Your task to perform on an android device: toggle pop-ups in chrome Image 0: 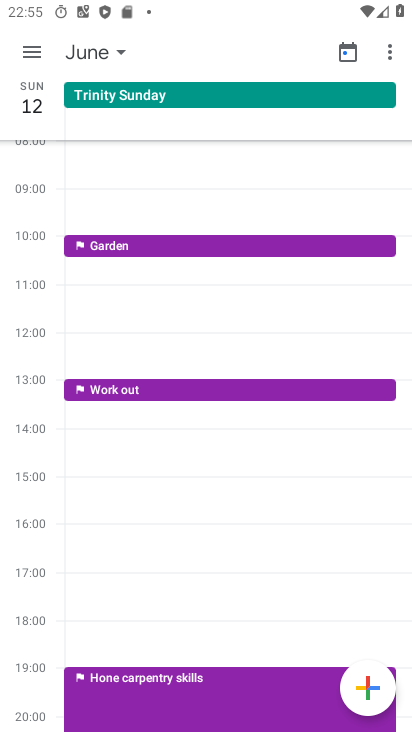
Step 0: press home button
Your task to perform on an android device: toggle pop-ups in chrome Image 1: 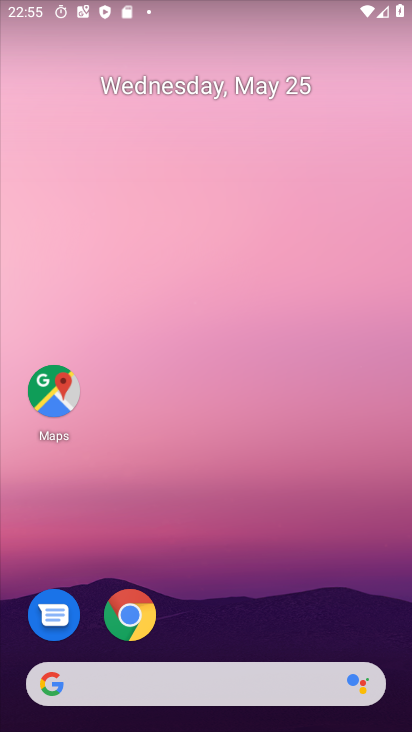
Step 1: click (139, 599)
Your task to perform on an android device: toggle pop-ups in chrome Image 2: 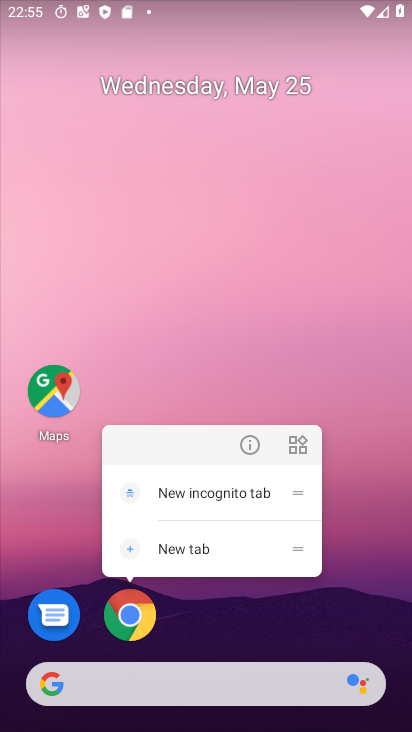
Step 2: click (149, 618)
Your task to perform on an android device: toggle pop-ups in chrome Image 3: 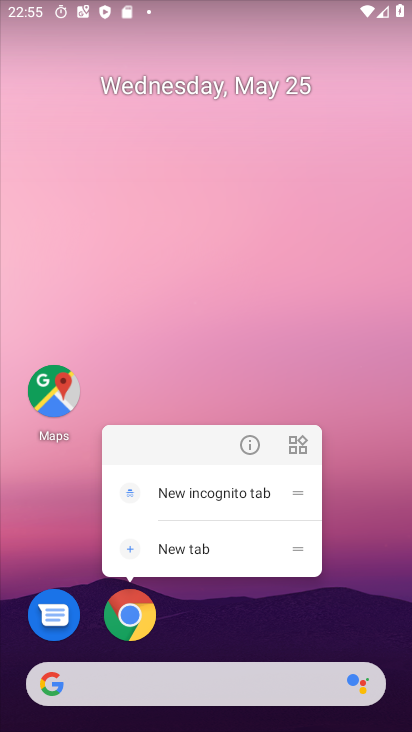
Step 3: click (122, 625)
Your task to perform on an android device: toggle pop-ups in chrome Image 4: 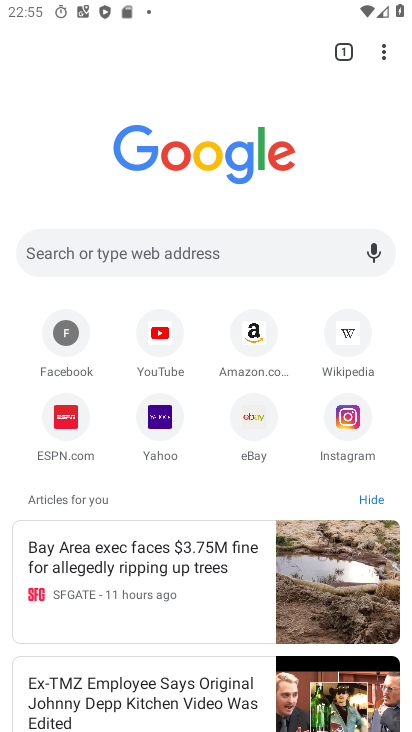
Step 4: click (381, 51)
Your task to perform on an android device: toggle pop-ups in chrome Image 5: 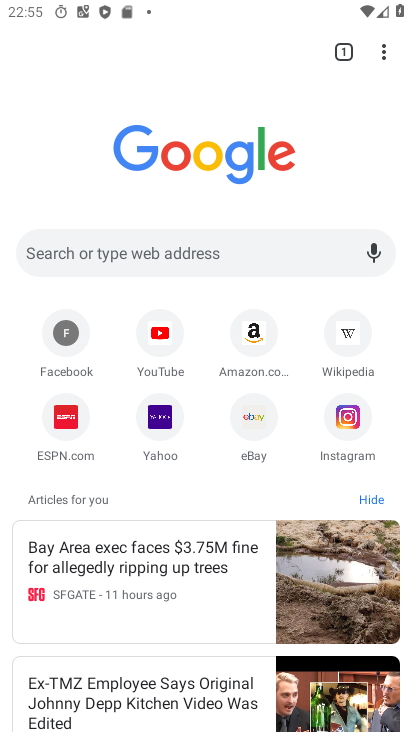
Step 5: click (393, 54)
Your task to perform on an android device: toggle pop-ups in chrome Image 6: 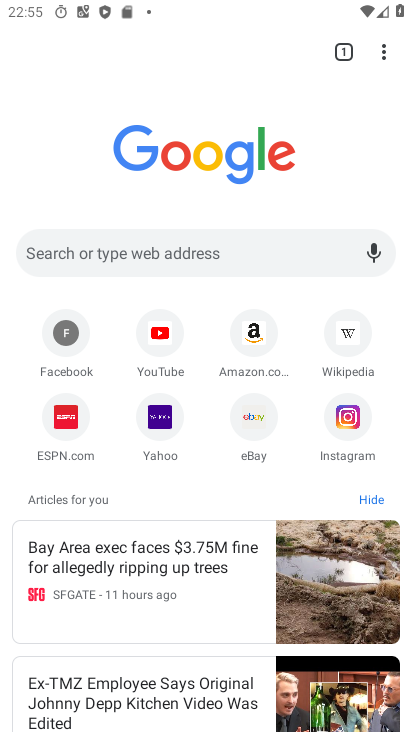
Step 6: drag from (381, 39) to (227, 434)
Your task to perform on an android device: toggle pop-ups in chrome Image 7: 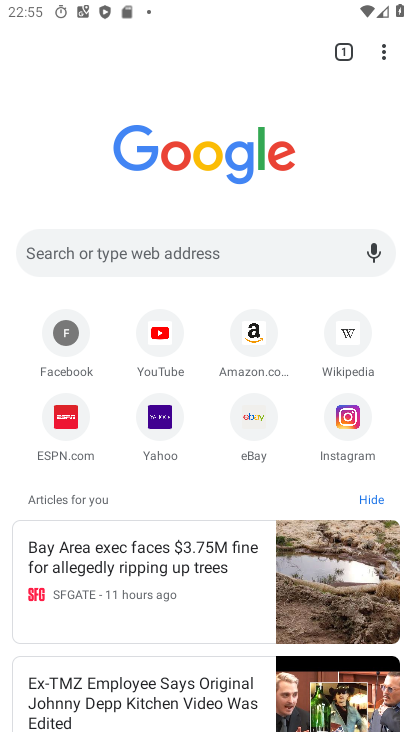
Step 7: click (229, 430)
Your task to perform on an android device: toggle pop-ups in chrome Image 8: 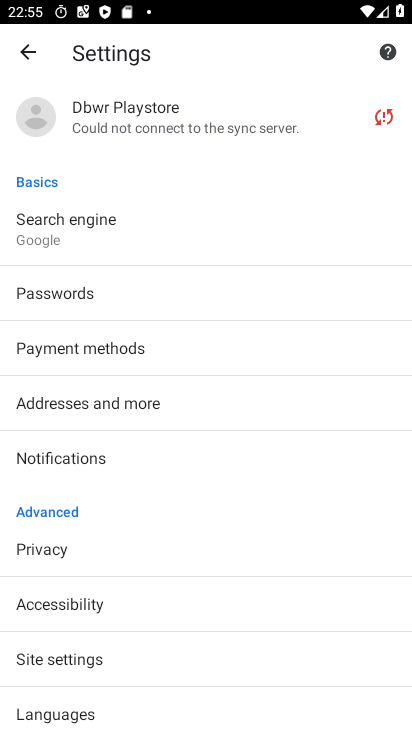
Step 8: drag from (147, 582) to (180, 447)
Your task to perform on an android device: toggle pop-ups in chrome Image 9: 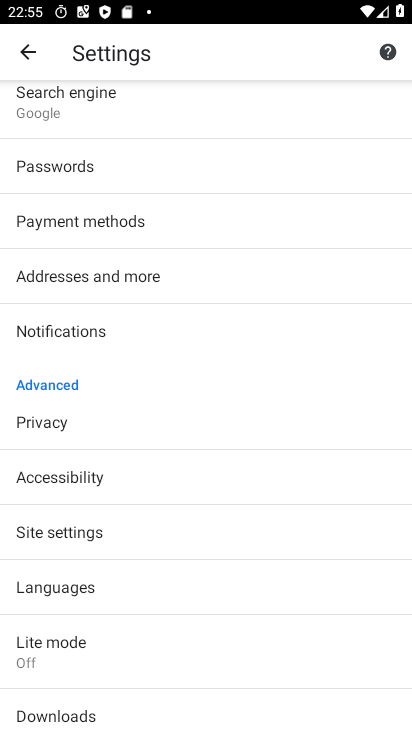
Step 9: click (94, 523)
Your task to perform on an android device: toggle pop-ups in chrome Image 10: 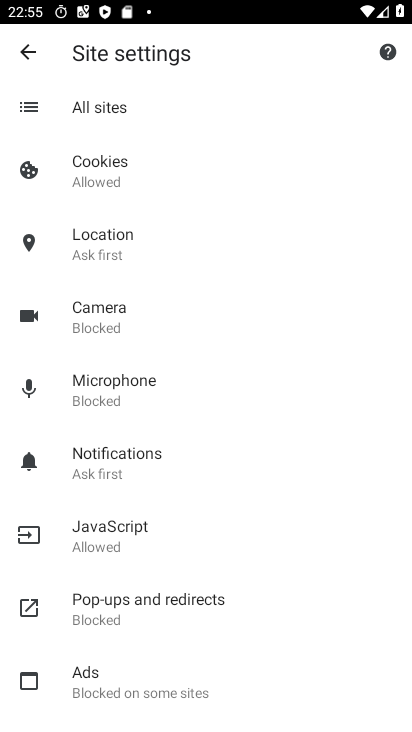
Step 10: drag from (264, 641) to (247, 541)
Your task to perform on an android device: toggle pop-ups in chrome Image 11: 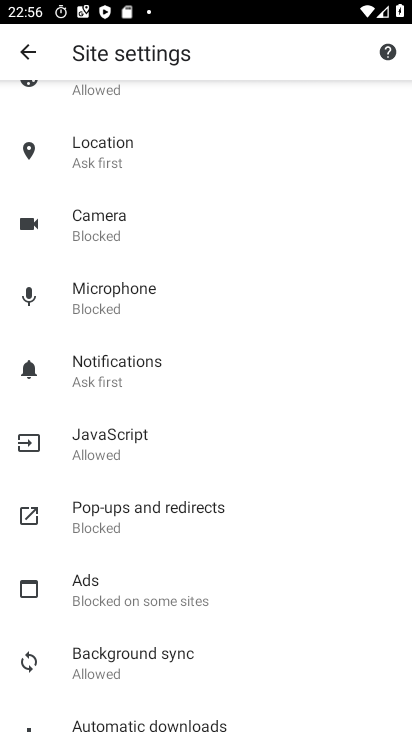
Step 11: click (188, 516)
Your task to perform on an android device: toggle pop-ups in chrome Image 12: 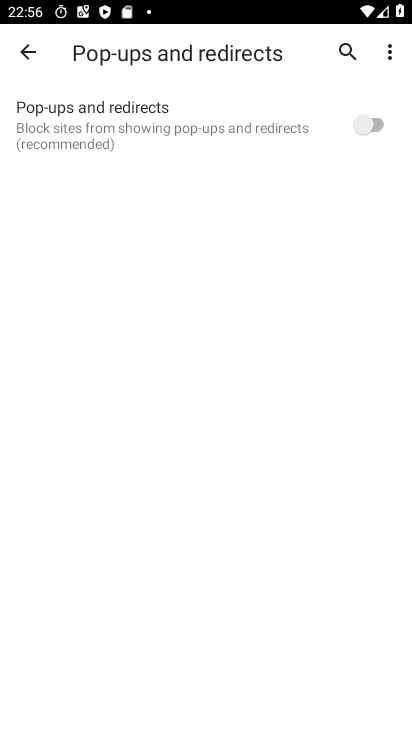
Step 12: click (293, 119)
Your task to perform on an android device: toggle pop-ups in chrome Image 13: 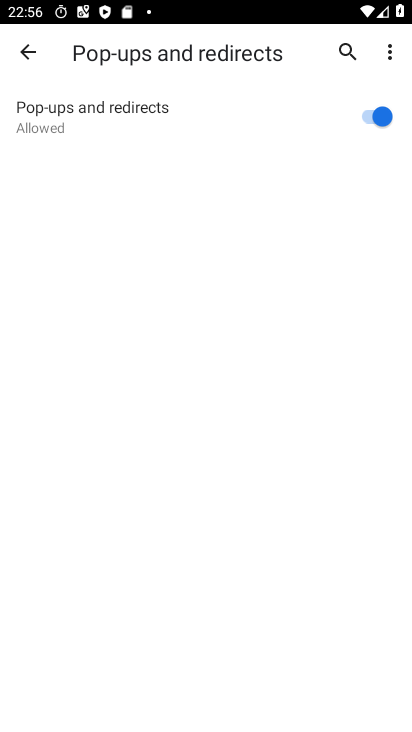
Step 13: task complete